Your task to perform on an android device: What's on my calendar today? Image 0: 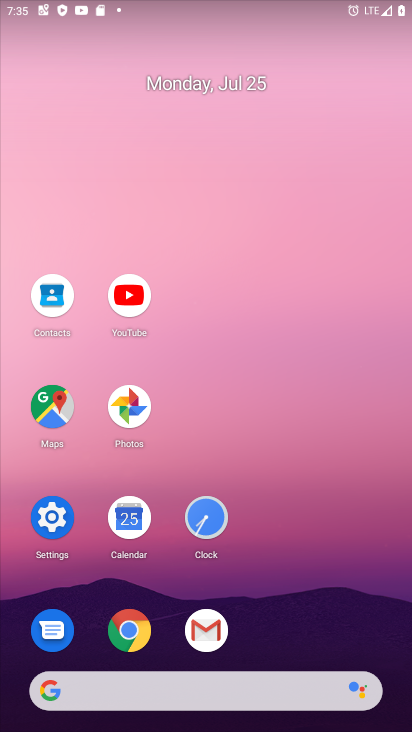
Step 0: click (125, 525)
Your task to perform on an android device: What's on my calendar today? Image 1: 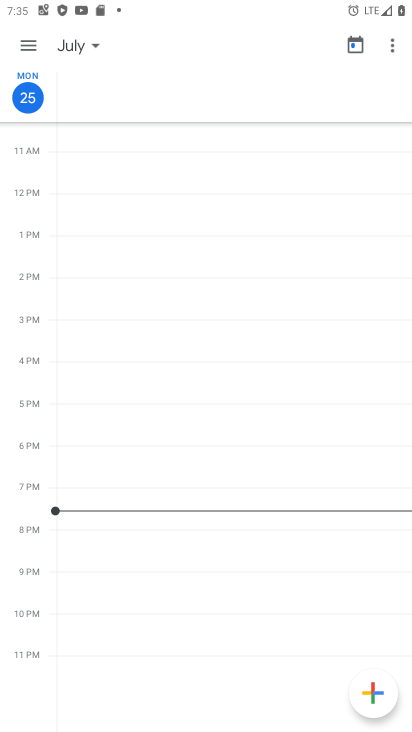
Step 1: task complete